Your task to perform on an android device: uninstall "Etsy: Buy & Sell Unique Items" Image 0: 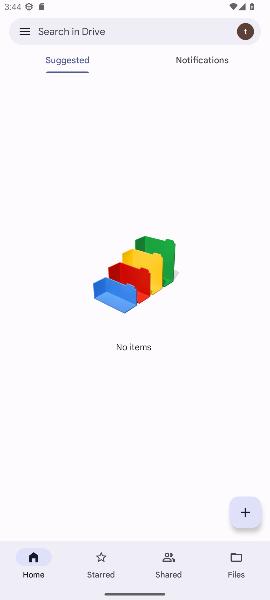
Step 0: press home button
Your task to perform on an android device: uninstall "Etsy: Buy & Sell Unique Items" Image 1: 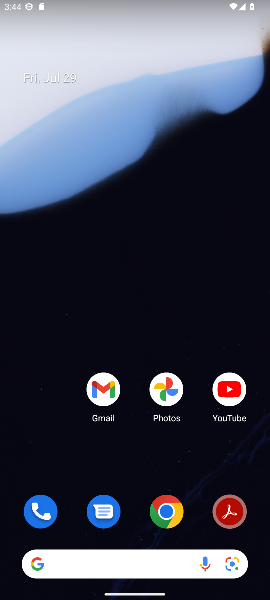
Step 1: drag from (40, 503) to (208, 5)
Your task to perform on an android device: uninstall "Etsy: Buy & Sell Unique Items" Image 2: 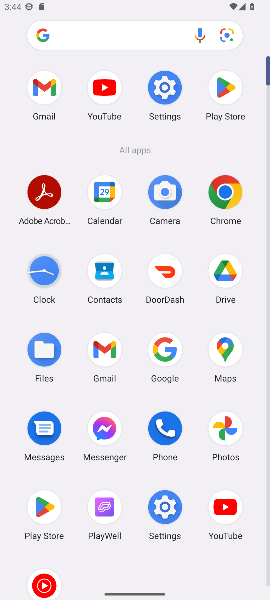
Step 2: click (49, 513)
Your task to perform on an android device: uninstall "Etsy: Buy & Sell Unique Items" Image 3: 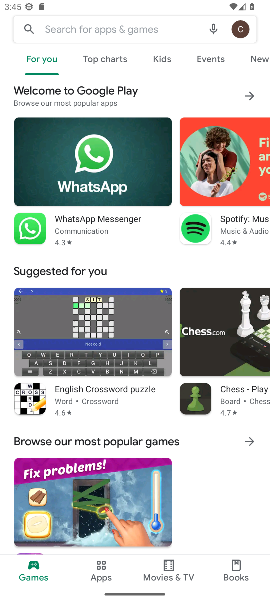
Step 3: click (66, 24)
Your task to perform on an android device: uninstall "Etsy: Buy & Sell Unique Items" Image 4: 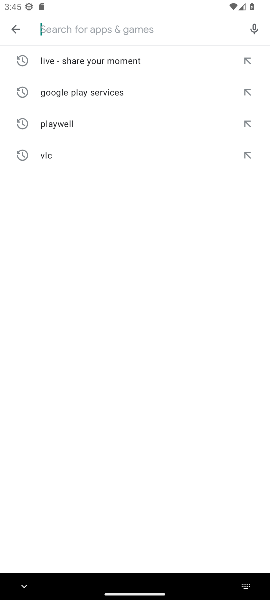
Step 4: type "Etsy: Buy & Sell Unique Items"
Your task to perform on an android device: uninstall "Etsy: Buy & Sell Unique Items" Image 5: 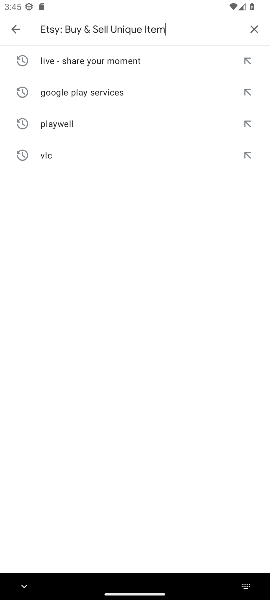
Step 5: type ""
Your task to perform on an android device: uninstall "Etsy: Buy & Sell Unique Items" Image 6: 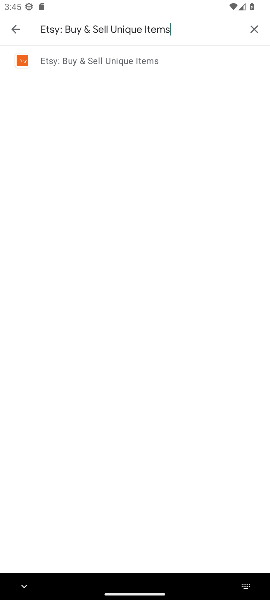
Step 6: click (66, 65)
Your task to perform on an android device: uninstall "Etsy: Buy & Sell Unique Items" Image 7: 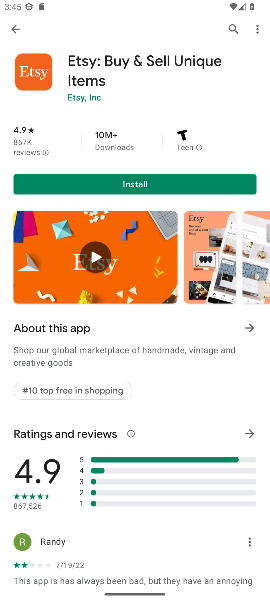
Step 7: click (81, 186)
Your task to perform on an android device: uninstall "Etsy: Buy & Sell Unique Items" Image 8: 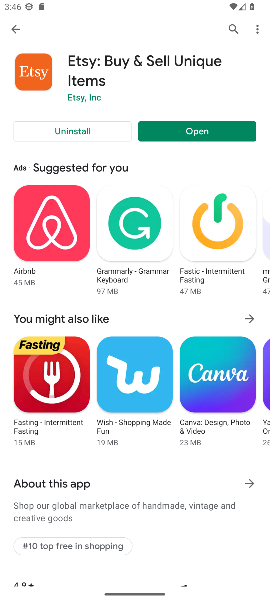
Step 8: task complete